Your task to perform on an android device: Add "logitech g pro" to the cart on ebay Image 0: 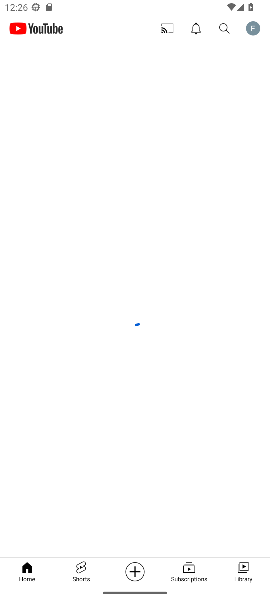
Step 0: press home button
Your task to perform on an android device: Add "logitech g pro" to the cart on ebay Image 1: 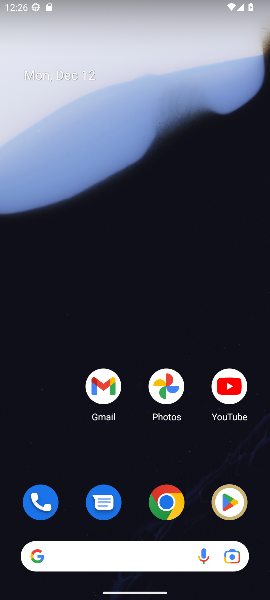
Step 1: click (168, 513)
Your task to perform on an android device: Add "logitech g pro" to the cart on ebay Image 2: 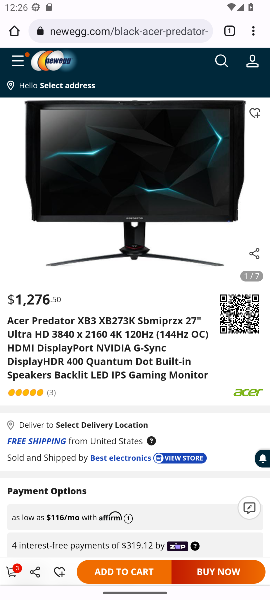
Step 2: click (215, 69)
Your task to perform on an android device: Add "logitech g pro" to the cart on ebay Image 3: 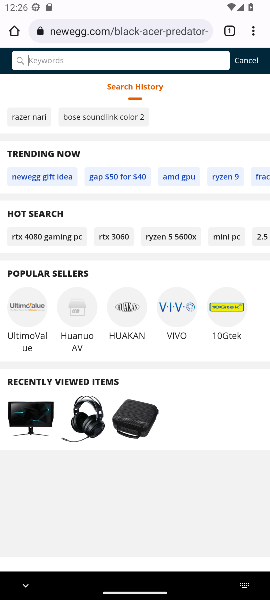
Step 3: type "lo"
Your task to perform on an android device: Add "logitech g pro" to the cart on ebay Image 4: 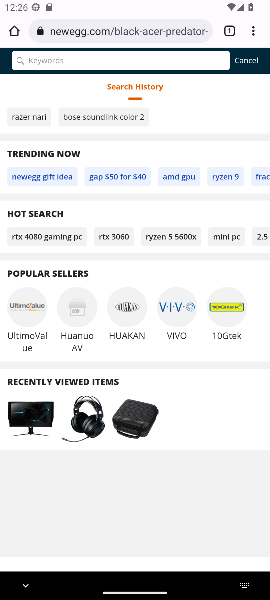
Step 4: click (148, 39)
Your task to perform on an android device: Add "logitech g pro" to the cart on ebay Image 5: 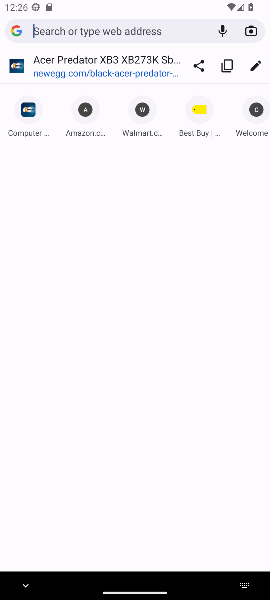
Step 5: type "ebay.com"
Your task to perform on an android device: Add "logitech g pro" to the cart on ebay Image 6: 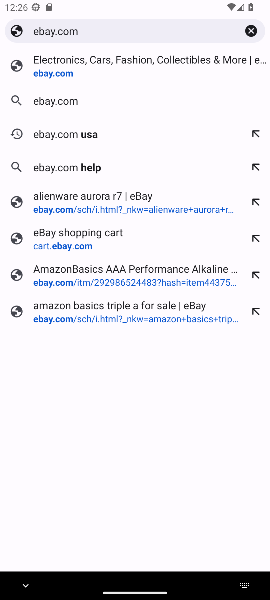
Step 6: click (94, 77)
Your task to perform on an android device: Add "logitech g pro" to the cart on ebay Image 7: 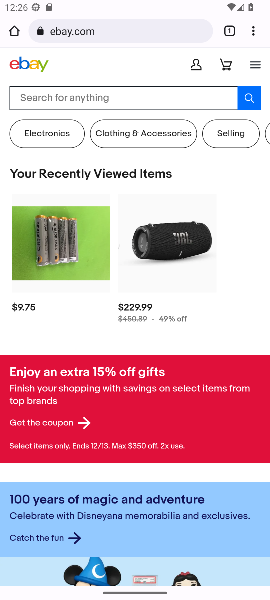
Step 7: click (102, 98)
Your task to perform on an android device: Add "logitech g pro" to the cart on ebay Image 8: 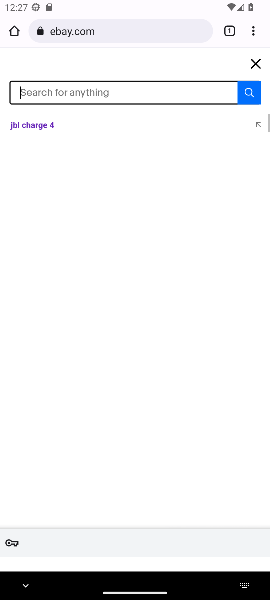
Step 8: type "logitech g pro"
Your task to perform on an android device: Add "logitech g pro" to the cart on ebay Image 9: 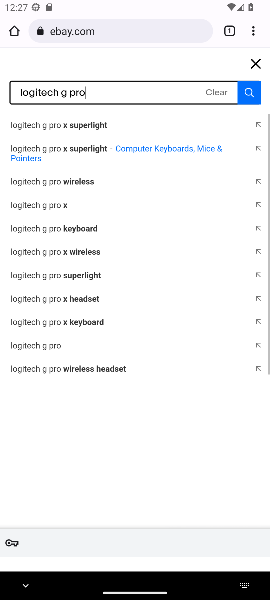
Step 9: click (246, 91)
Your task to perform on an android device: Add "logitech g pro" to the cart on ebay Image 10: 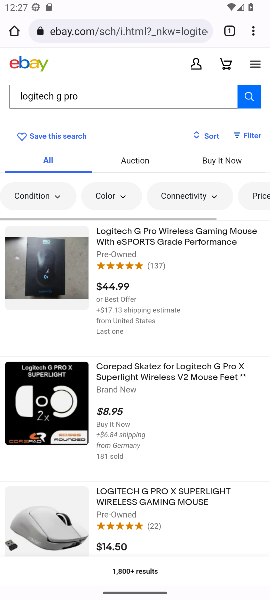
Step 10: click (113, 253)
Your task to perform on an android device: Add "logitech g pro" to the cart on ebay Image 11: 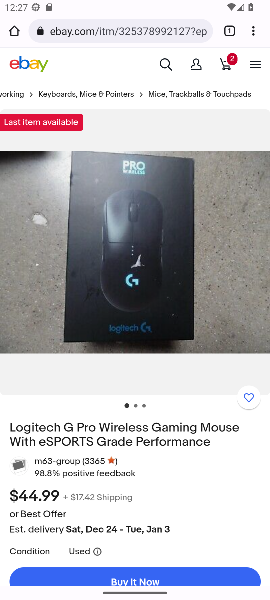
Step 11: drag from (113, 374) to (130, 229)
Your task to perform on an android device: Add "logitech g pro" to the cart on ebay Image 12: 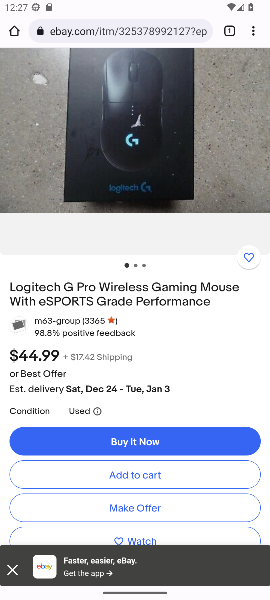
Step 12: click (147, 479)
Your task to perform on an android device: Add "logitech g pro" to the cart on ebay Image 13: 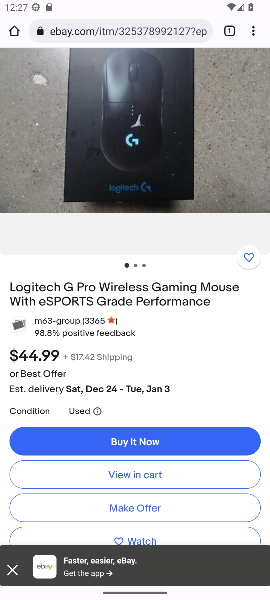
Step 13: task complete